Your task to perform on an android device: open sync settings in chrome Image 0: 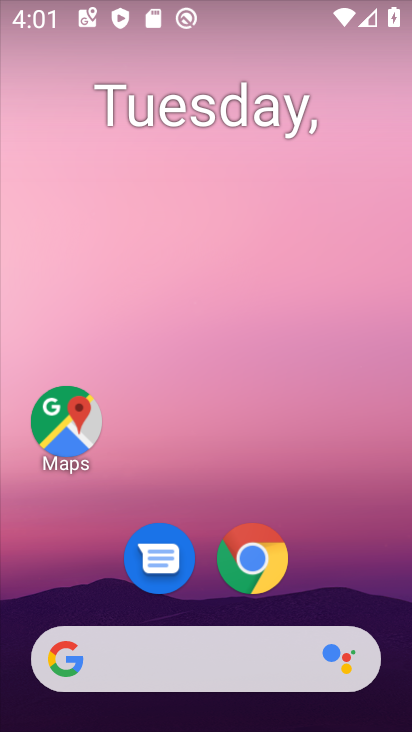
Step 0: click (260, 569)
Your task to perform on an android device: open sync settings in chrome Image 1: 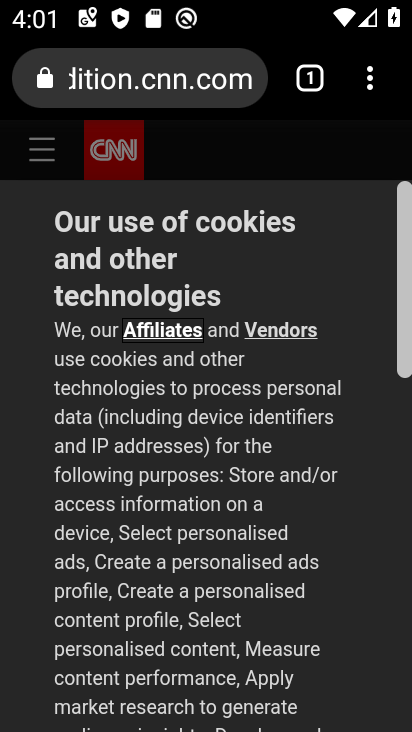
Step 1: drag from (373, 92) to (253, 645)
Your task to perform on an android device: open sync settings in chrome Image 2: 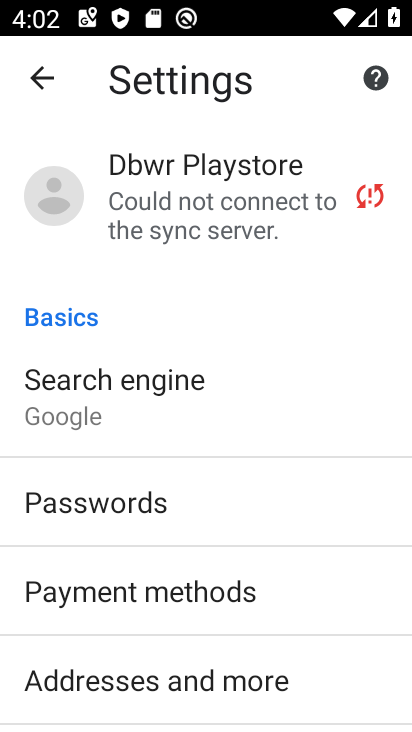
Step 2: click (268, 235)
Your task to perform on an android device: open sync settings in chrome Image 3: 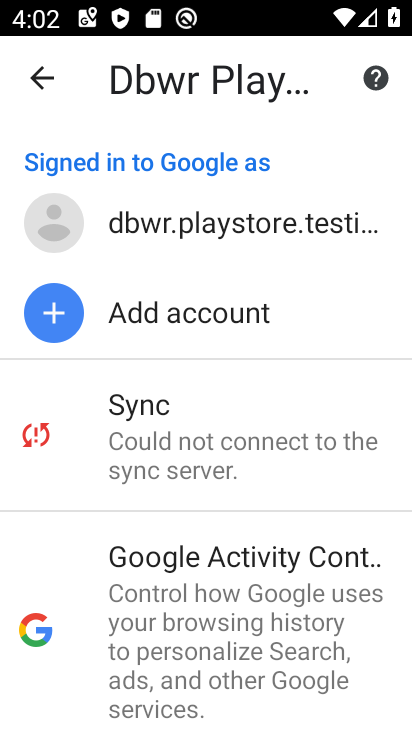
Step 3: click (208, 467)
Your task to perform on an android device: open sync settings in chrome Image 4: 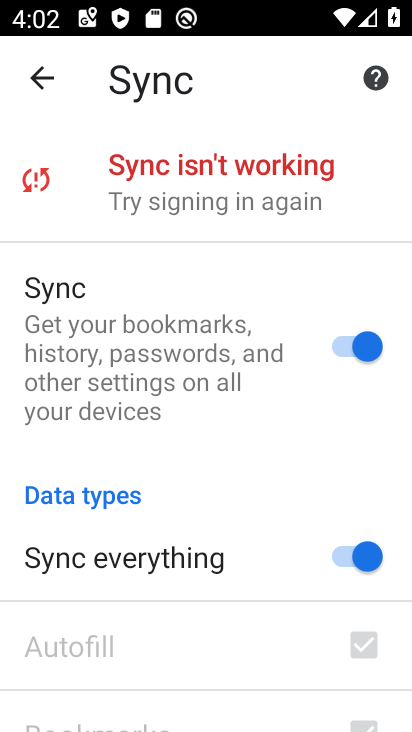
Step 4: task complete